Your task to perform on an android device: show emergency info Image 0: 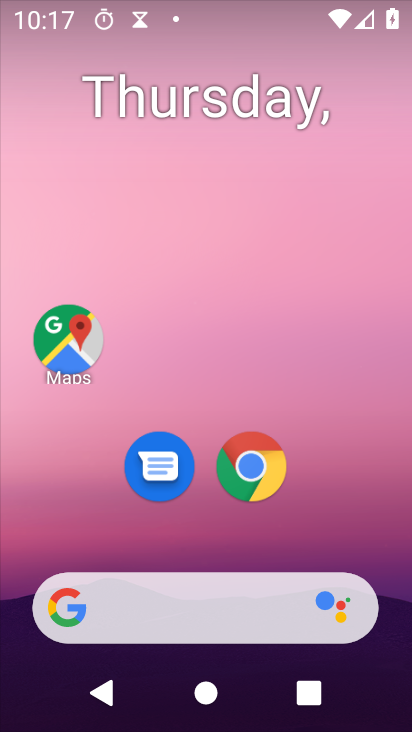
Step 0: drag from (164, 590) to (339, 59)
Your task to perform on an android device: show emergency info Image 1: 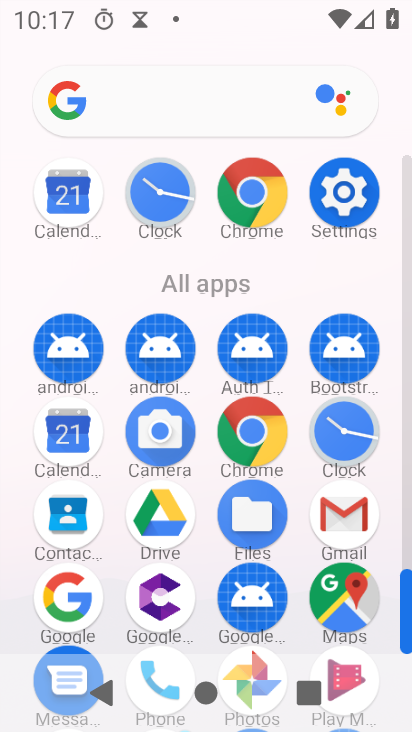
Step 1: click (344, 210)
Your task to perform on an android device: show emergency info Image 2: 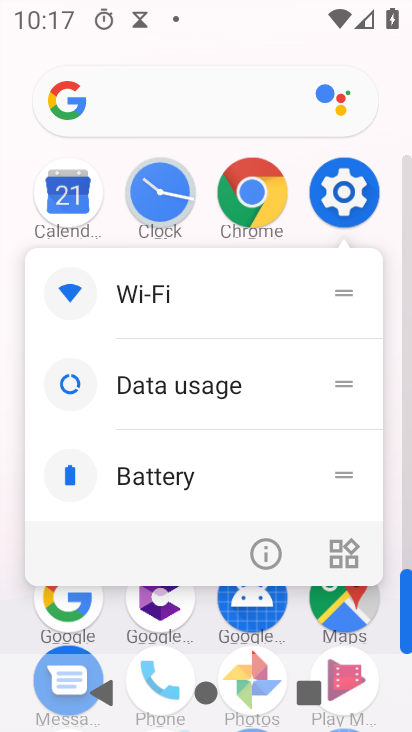
Step 2: click (343, 193)
Your task to perform on an android device: show emergency info Image 3: 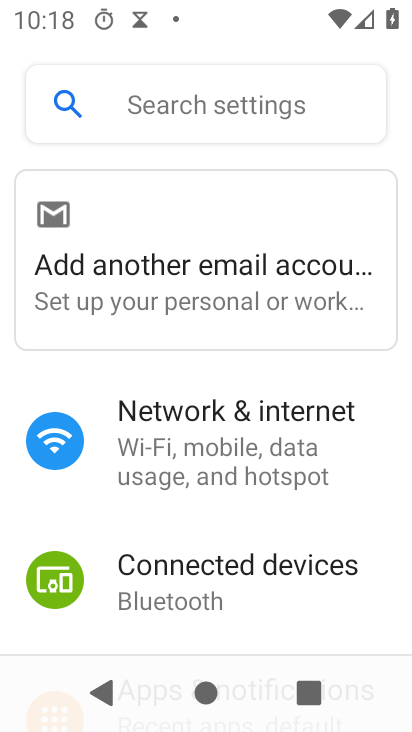
Step 3: drag from (221, 621) to (399, 12)
Your task to perform on an android device: show emergency info Image 4: 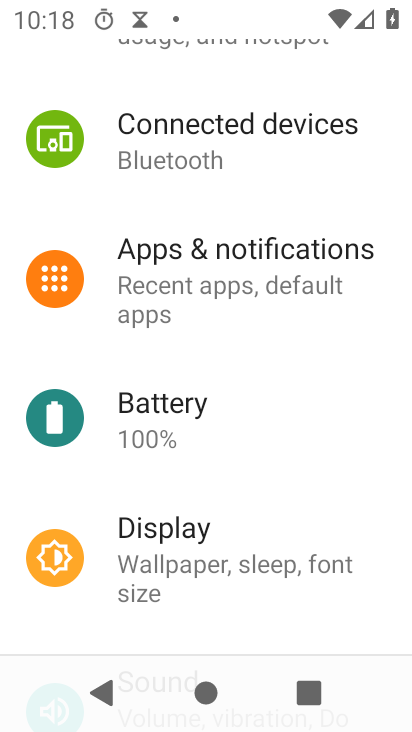
Step 4: drag from (219, 602) to (401, 18)
Your task to perform on an android device: show emergency info Image 5: 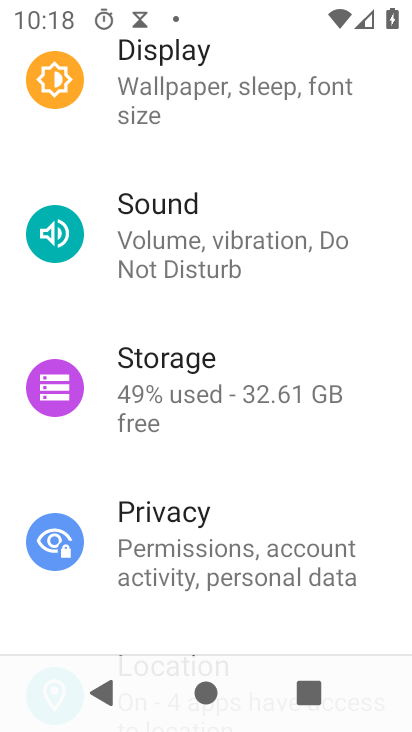
Step 5: drag from (181, 592) to (411, 2)
Your task to perform on an android device: show emergency info Image 6: 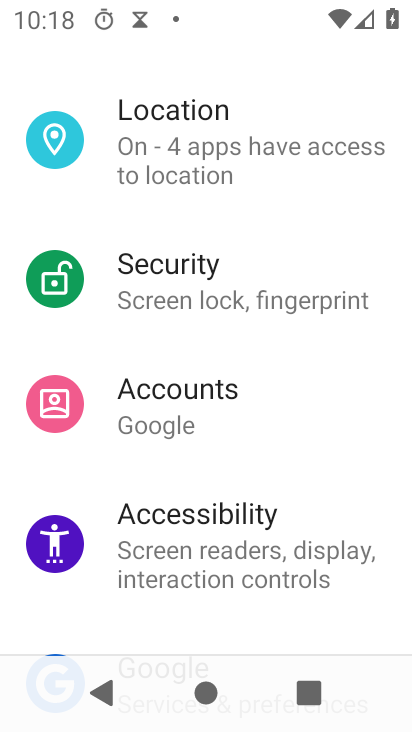
Step 6: drag from (245, 540) to (403, 46)
Your task to perform on an android device: show emergency info Image 7: 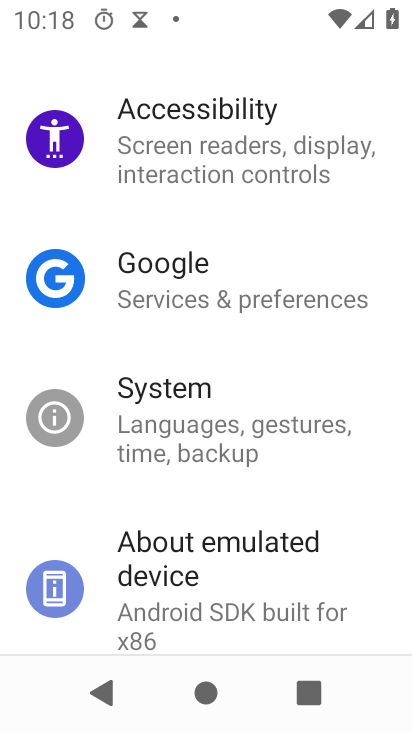
Step 7: click (166, 570)
Your task to perform on an android device: show emergency info Image 8: 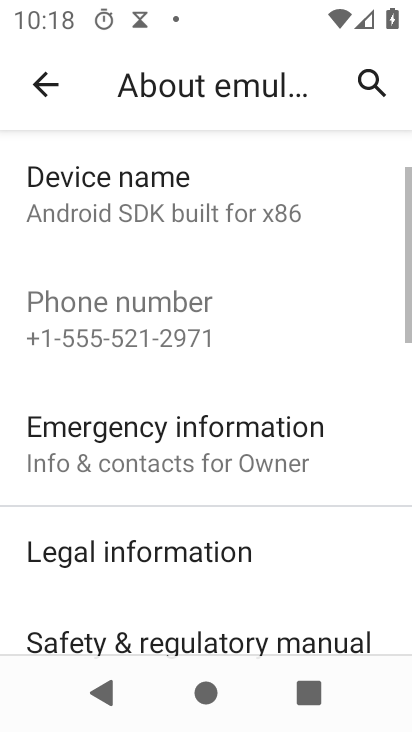
Step 8: click (225, 426)
Your task to perform on an android device: show emergency info Image 9: 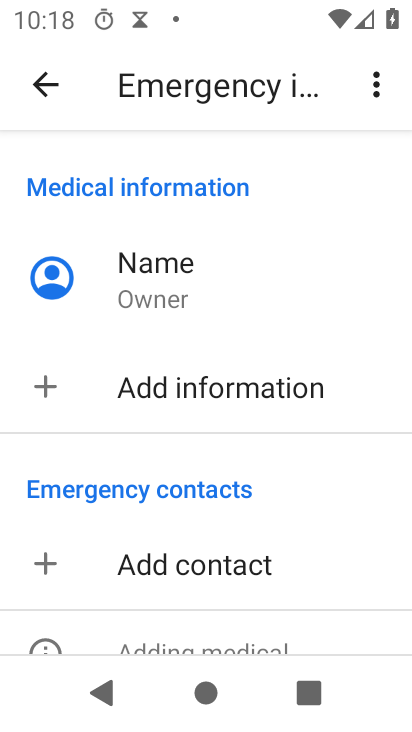
Step 9: task complete